Your task to perform on an android device: Search for Italian restaurants on Maps Image 0: 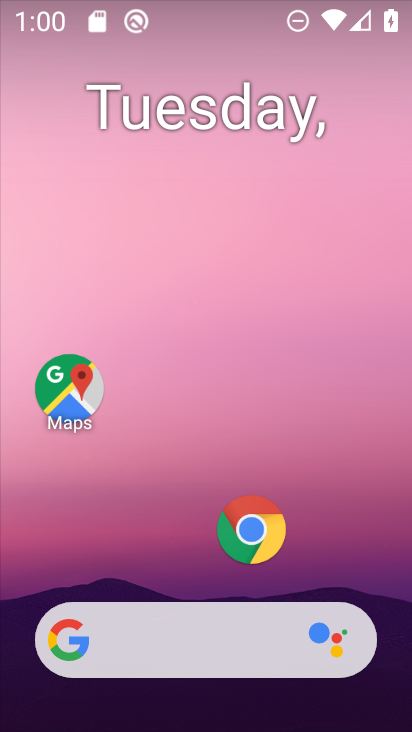
Step 0: drag from (223, 681) to (300, 115)
Your task to perform on an android device: Search for Italian restaurants on Maps Image 1: 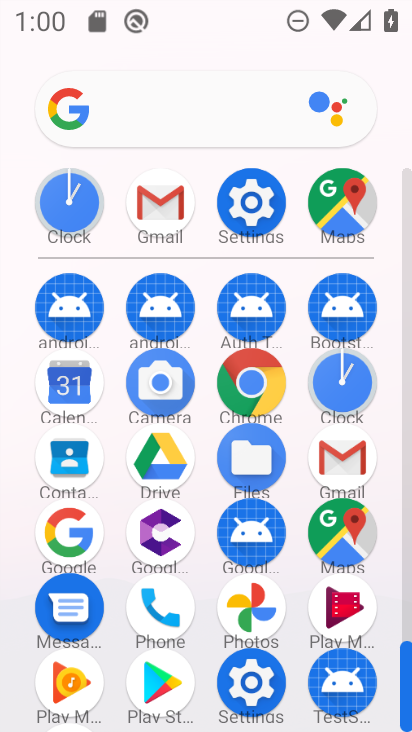
Step 1: click (342, 208)
Your task to perform on an android device: Search for Italian restaurants on Maps Image 2: 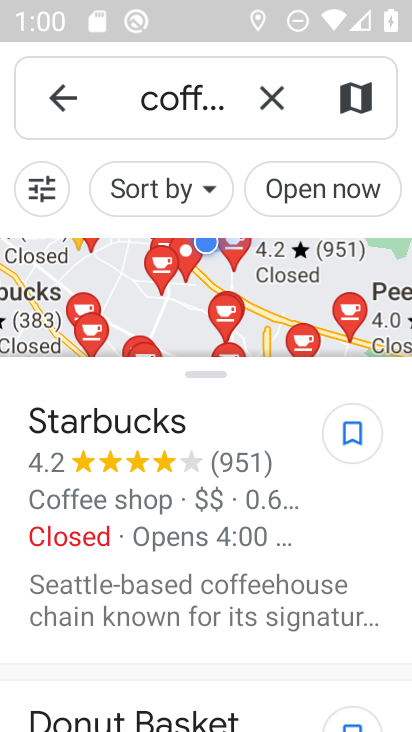
Step 2: click (276, 104)
Your task to perform on an android device: Search for Italian restaurants on Maps Image 3: 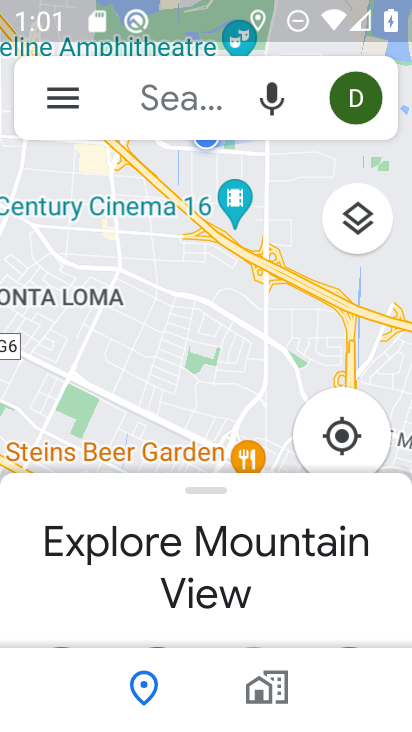
Step 3: click (205, 92)
Your task to perform on an android device: Search for Italian restaurants on Maps Image 4: 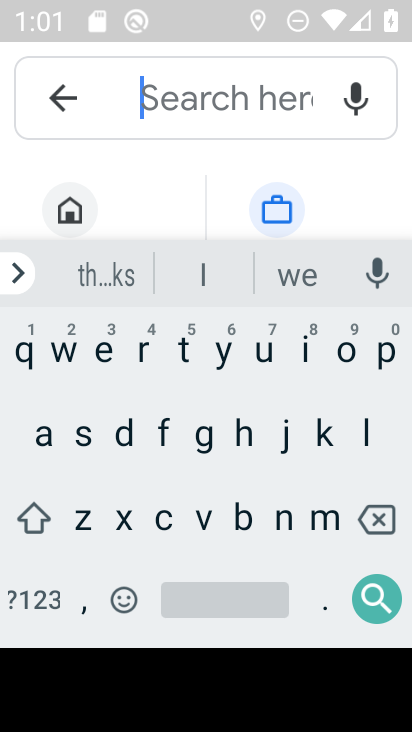
Step 4: click (307, 358)
Your task to perform on an android device: Search for Italian restaurants on Maps Image 5: 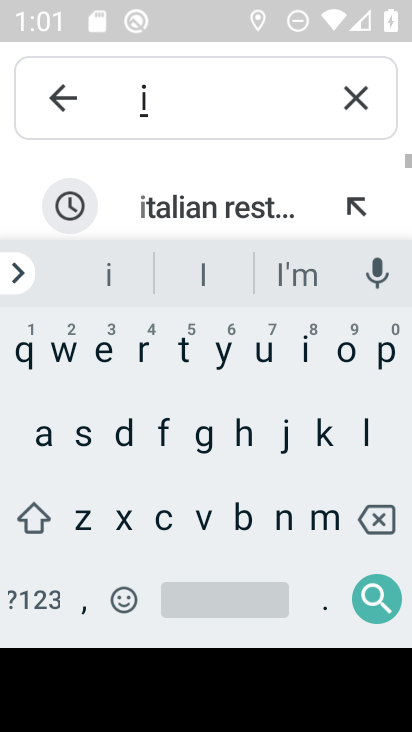
Step 5: click (184, 350)
Your task to perform on an android device: Search for Italian restaurants on Maps Image 6: 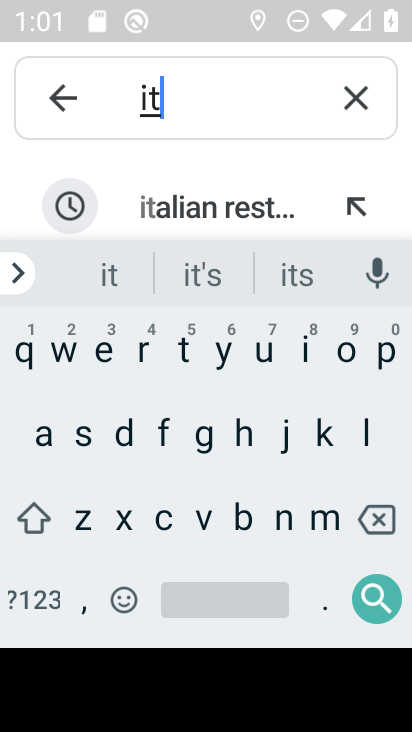
Step 6: click (186, 217)
Your task to perform on an android device: Search for Italian restaurants on Maps Image 7: 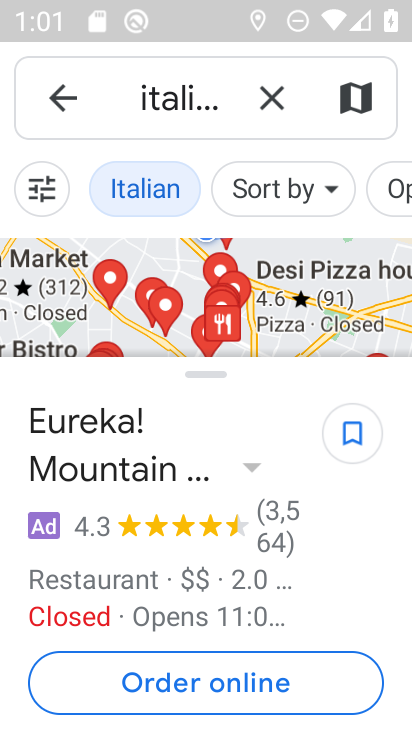
Step 7: task complete